Your task to perform on an android device: Is it going to rain tomorrow? Image 0: 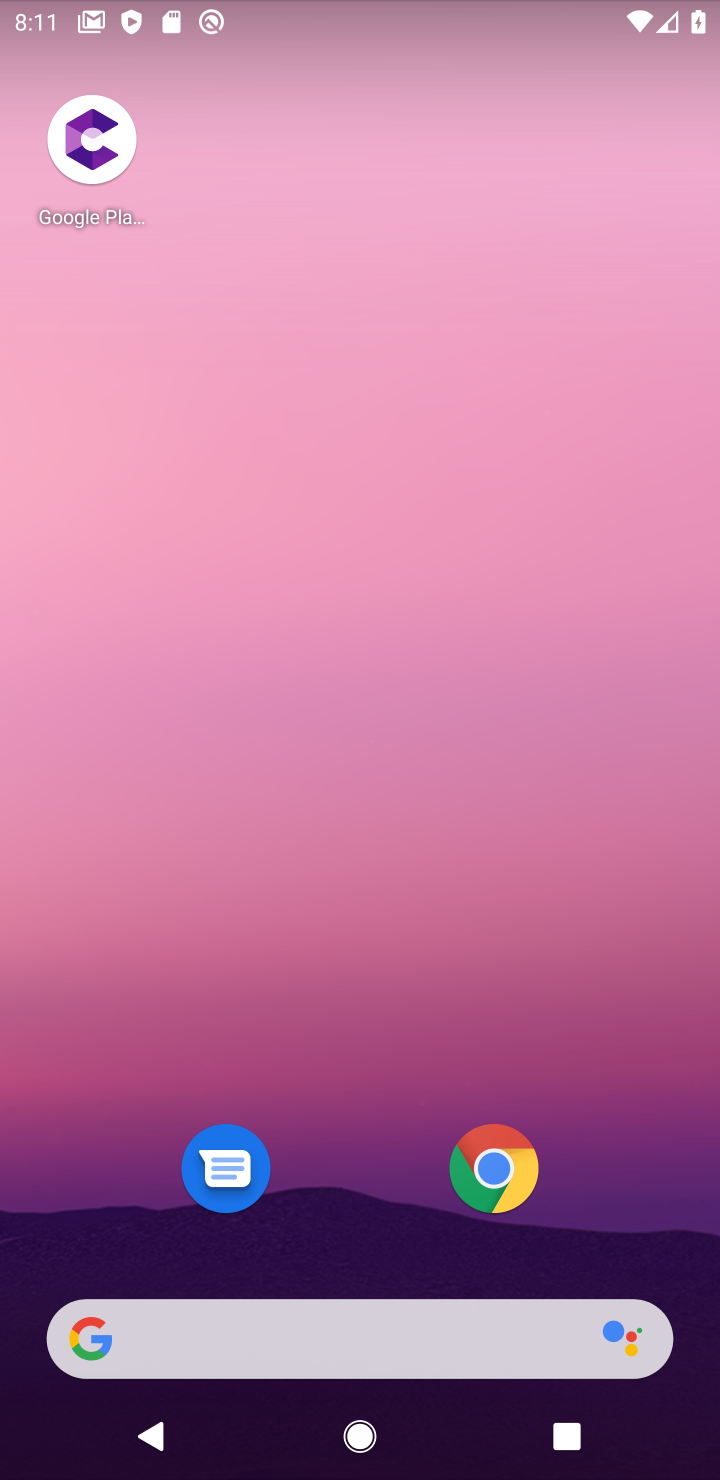
Step 0: drag from (377, 1117) to (254, 49)
Your task to perform on an android device: Is it going to rain tomorrow? Image 1: 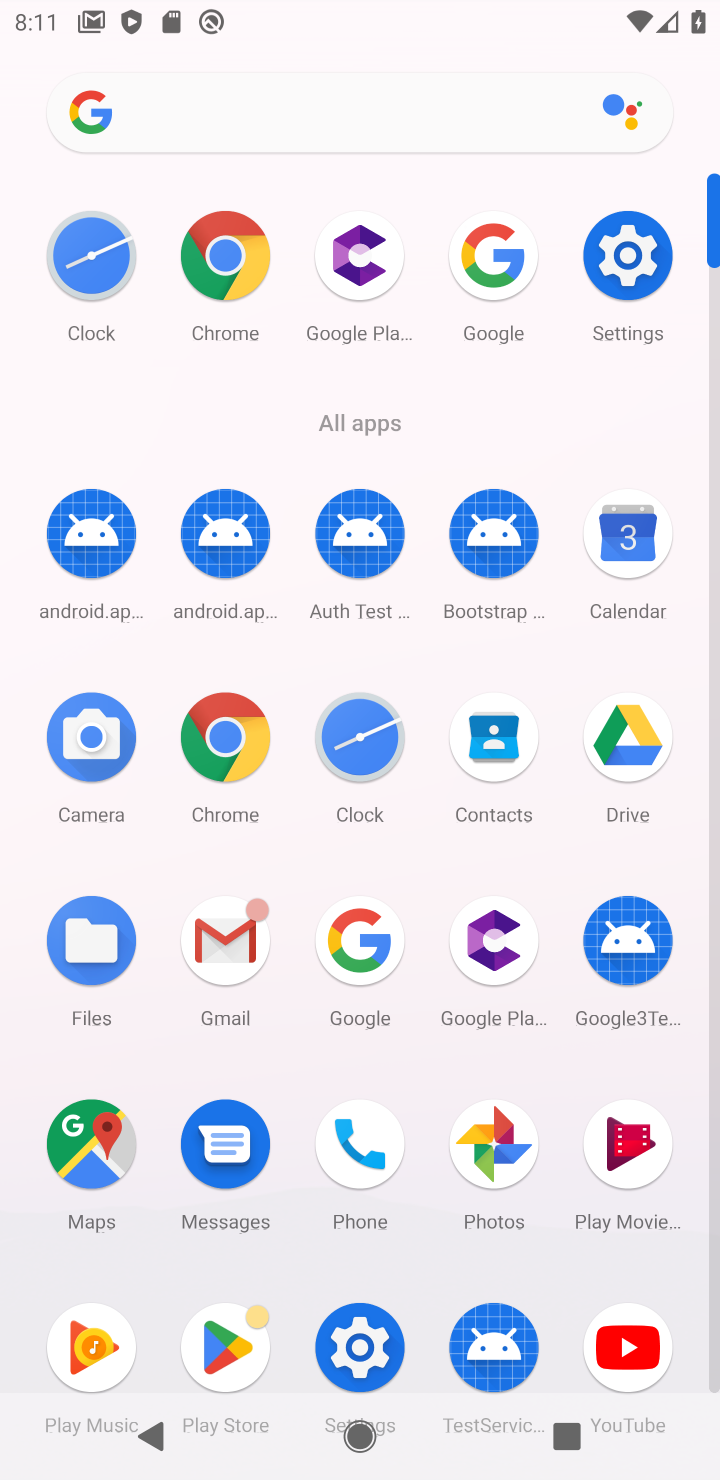
Step 1: click (358, 980)
Your task to perform on an android device: Is it going to rain tomorrow? Image 2: 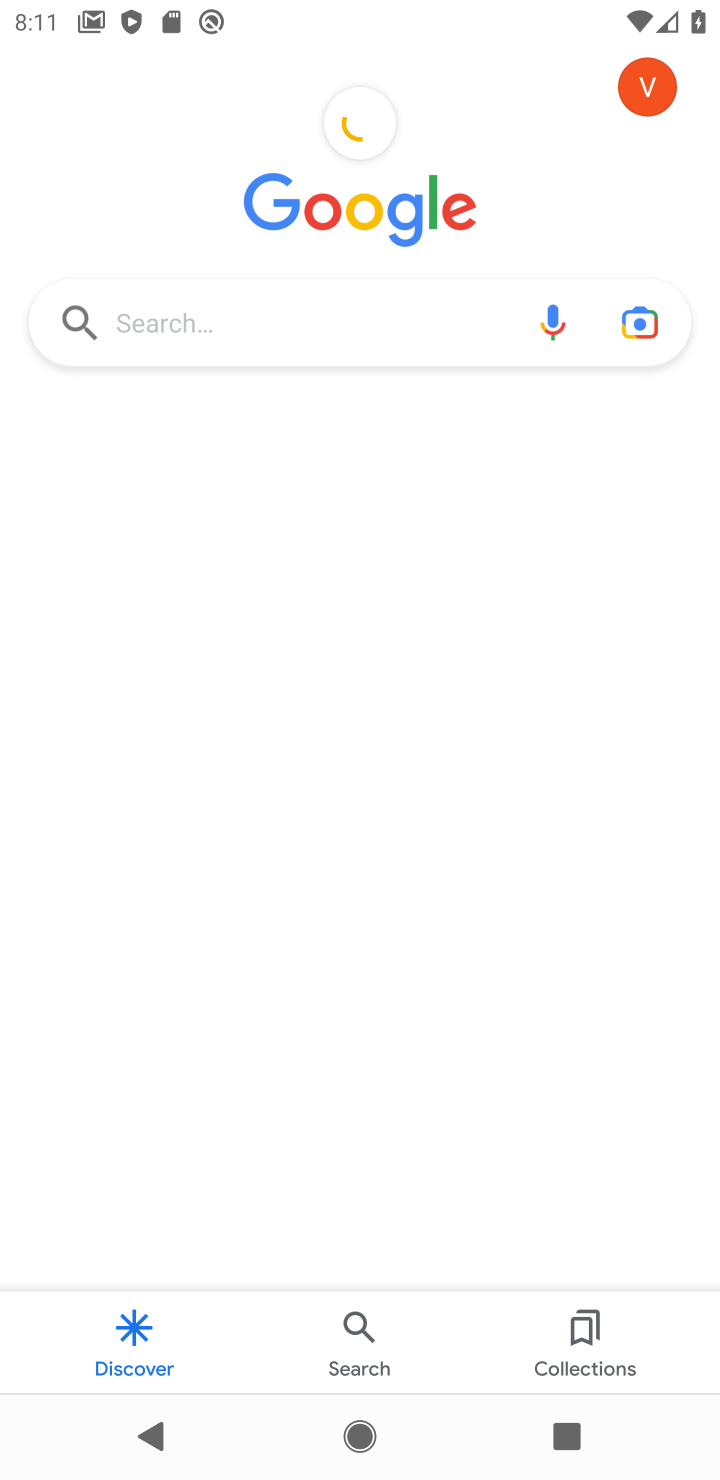
Step 2: click (349, 314)
Your task to perform on an android device: Is it going to rain tomorrow? Image 3: 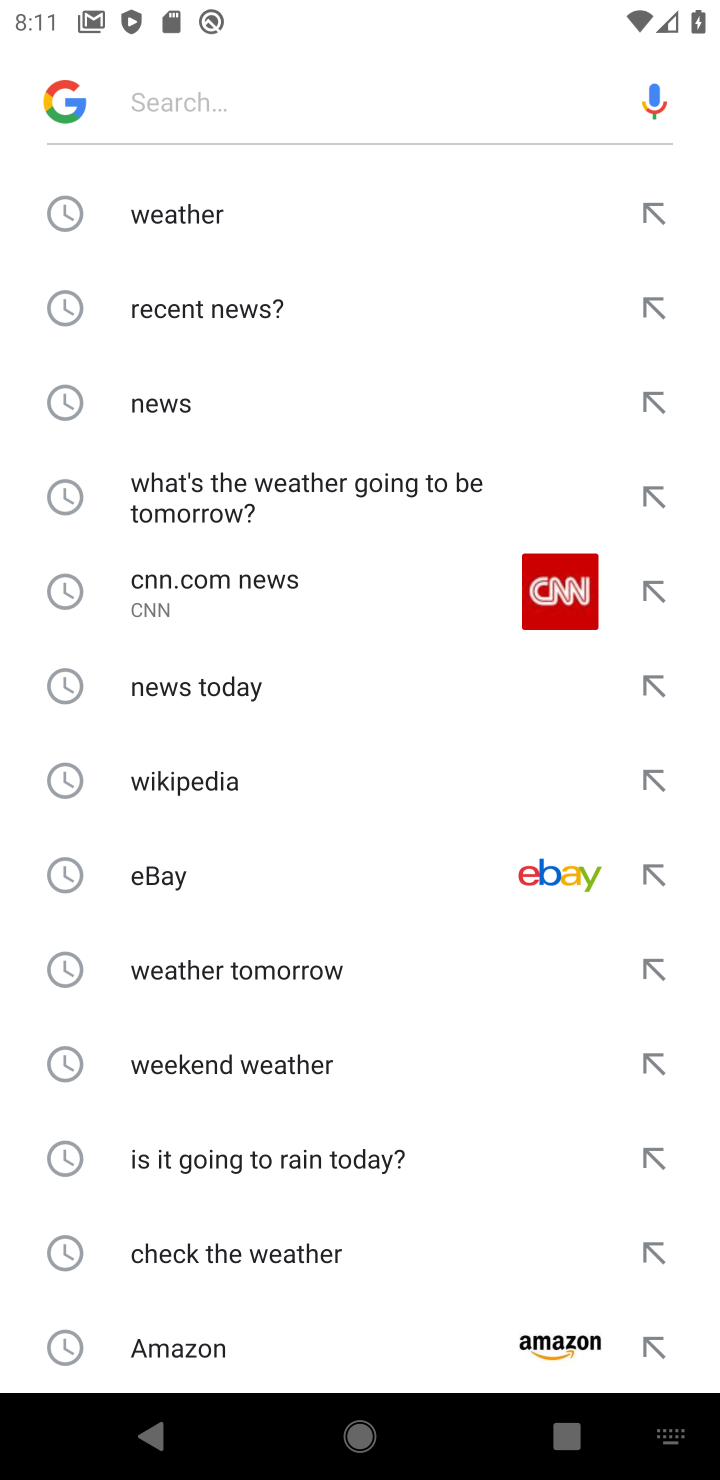
Step 3: click (190, 218)
Your task to perform on an android device: Is it going to rain tomorrow? Image 4: 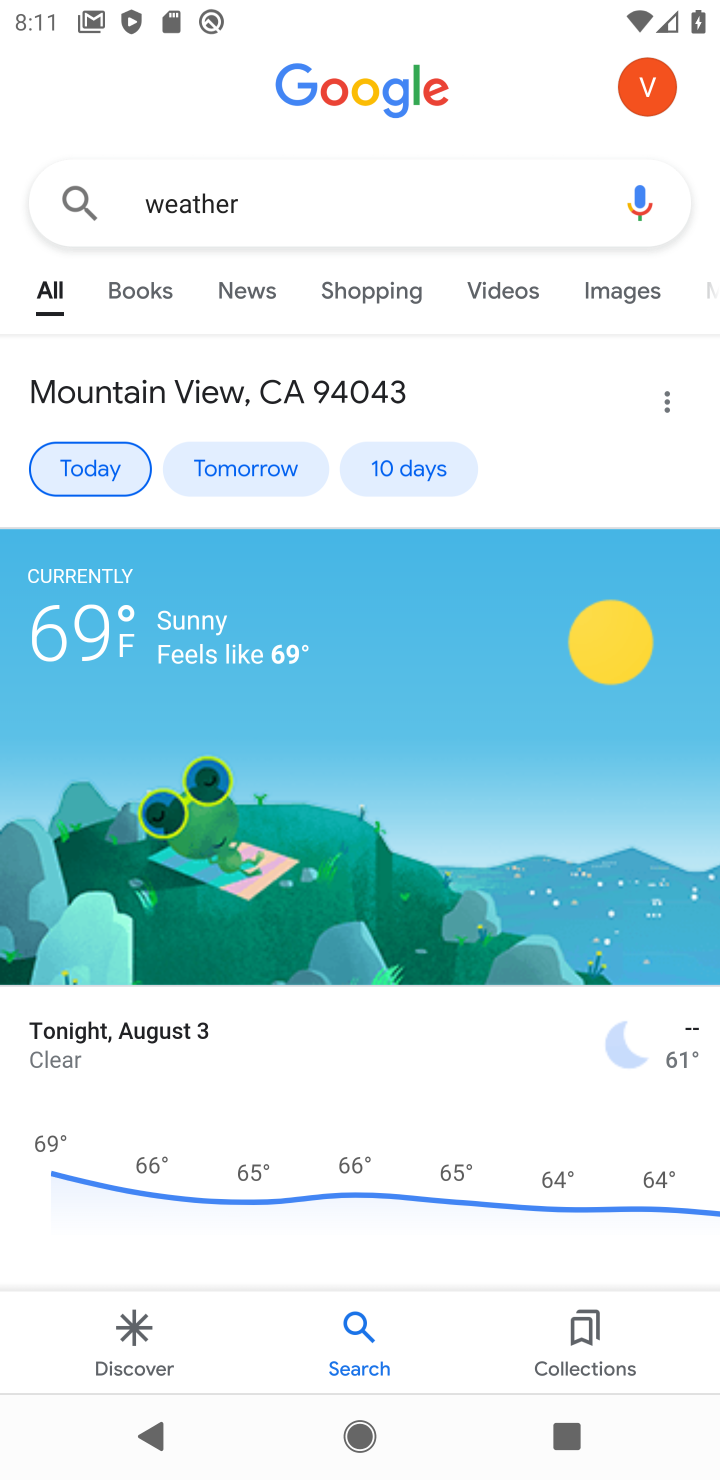
Step 4: click (228, 474)
Your task to perform on an android device: Is it going to rain tomorrow? Image 5: 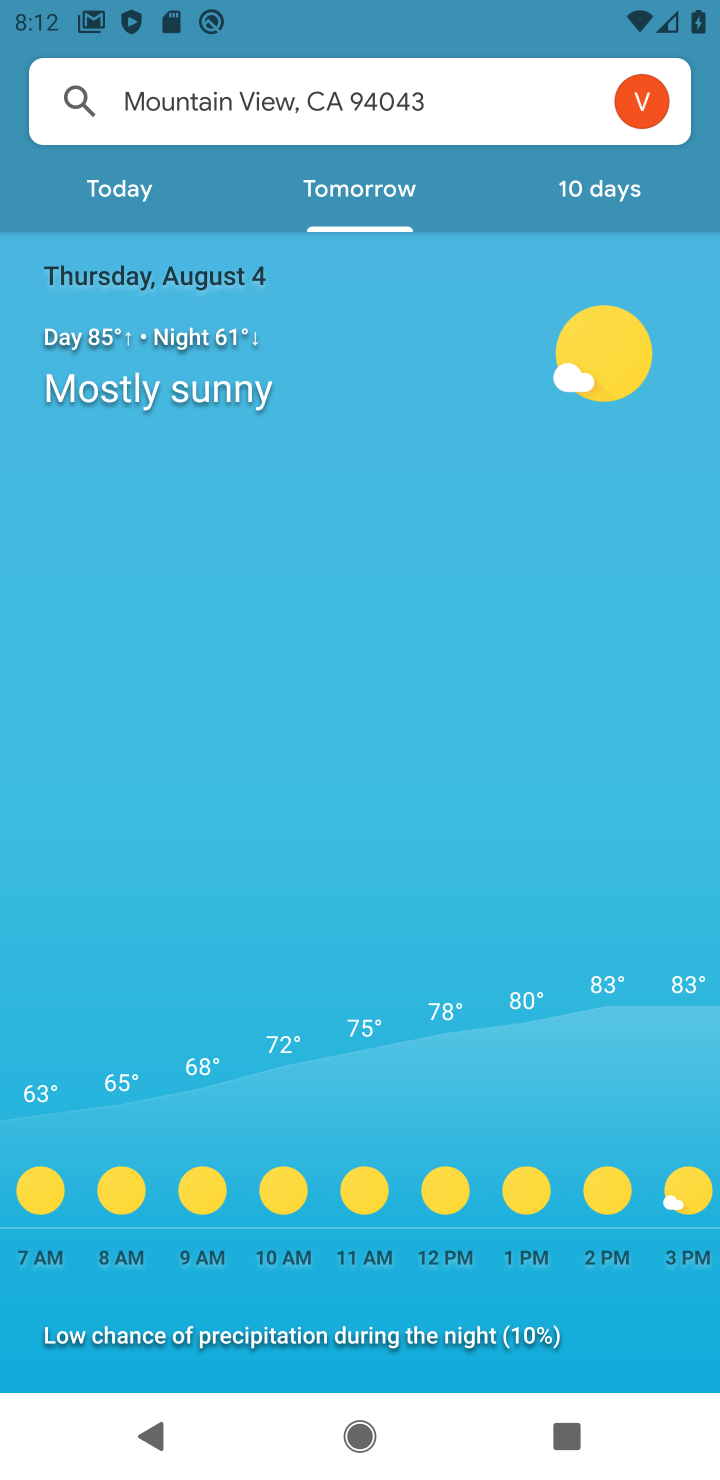
Step 5: task complete